Your task to perform on an android device: Turn on the flashlight Image 0: 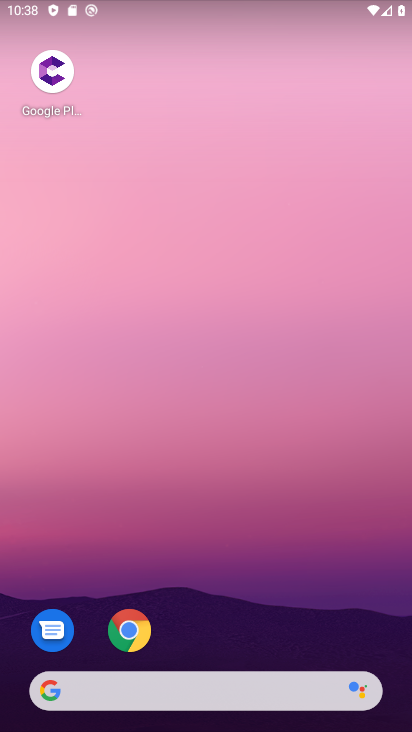
Step 0: drag from (251, 571) to (279, 22)
Your task to perform on an android device: Turn on the flashlight Image 1: 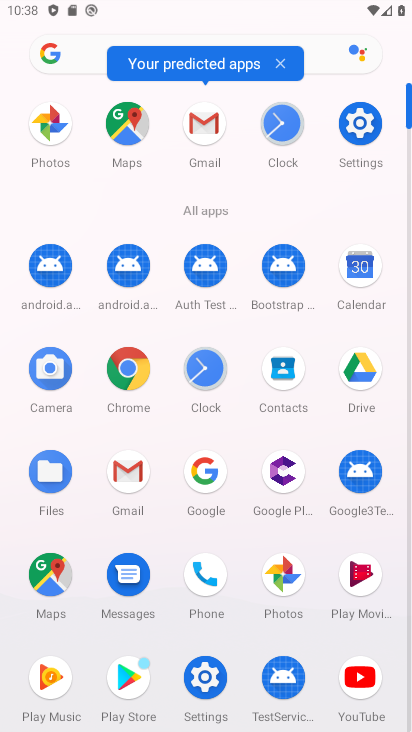
Step 1: click (353, 121)
Your task to perform on an android device: Turn on the flashlight Image 2: 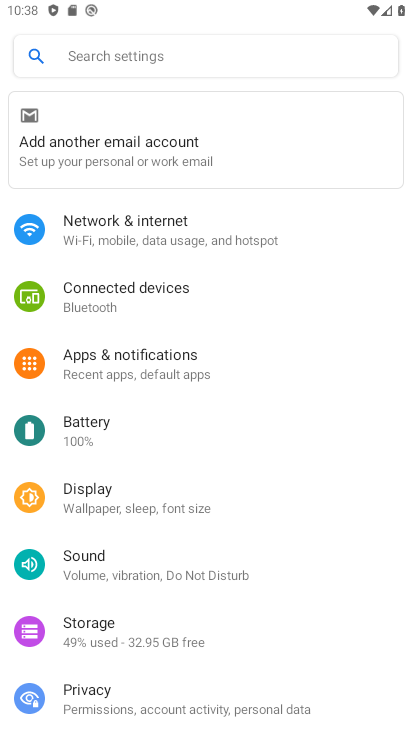
Step 2: click (114, 497)
Your task to perform on an android device: Turn on the flashlight Image 3: 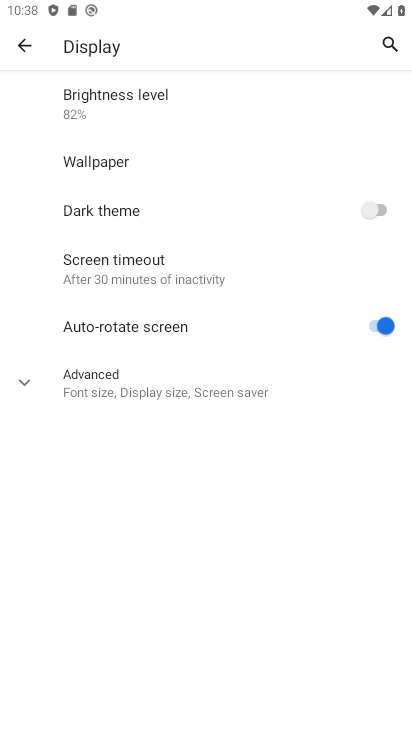
Step 3: task complete